Your task to perform on an android device: Open Chrome and go to settings Image 0: 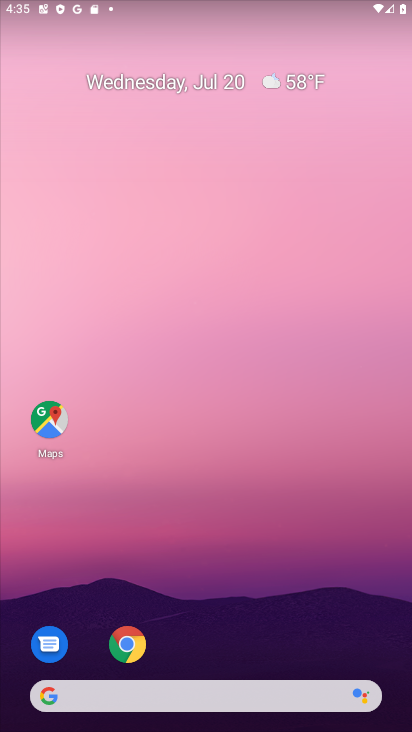
Step 0: drag from (190, 671) to (271, 7)
Your task to perform on an android device: Open Chrome and go to settings Image 1: 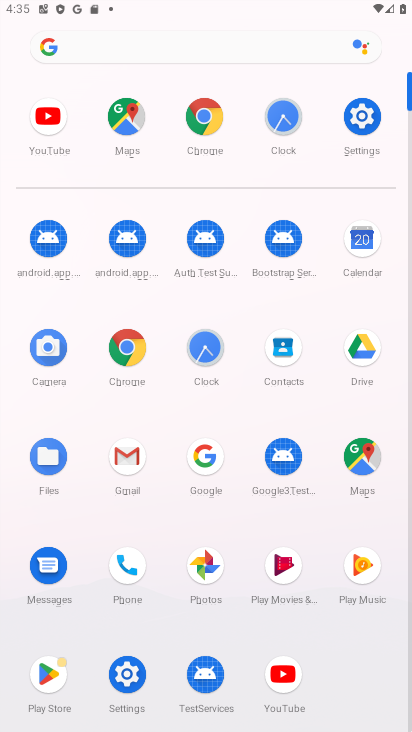
Step 1: click (201, 129)
Your task to perform on an android device: Open Chrome and go to settings Image 2: 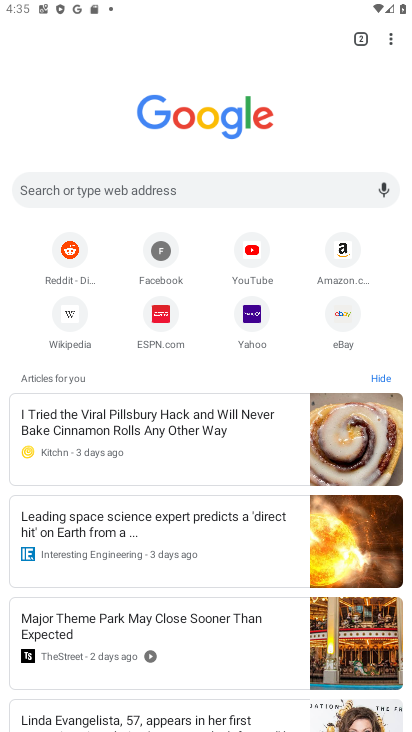
Step 2: task complete